Your task to perform on an android device: Go to network settings Image 0: 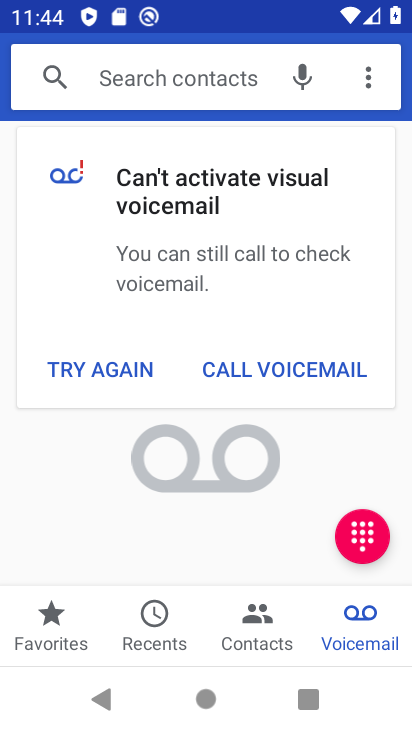
Step 0: press home button
Your task to perform on an android device: Go to network settings Image 1: 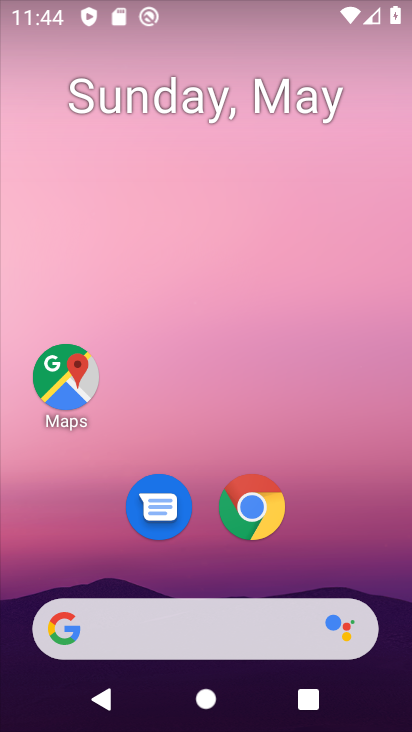
Step 1: drag from (231, 716) to (232, 80)
Your task to perform on an android device: Go to network settings Image 2: 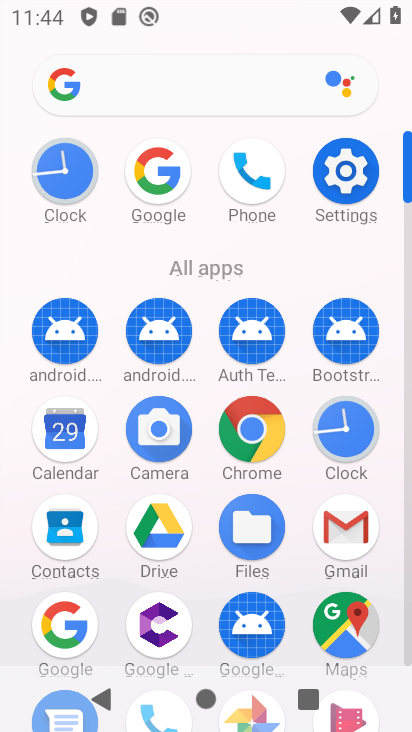
Step 2: click (348, 172)
Your task to perform on an android device: Go to network settings Image 3: 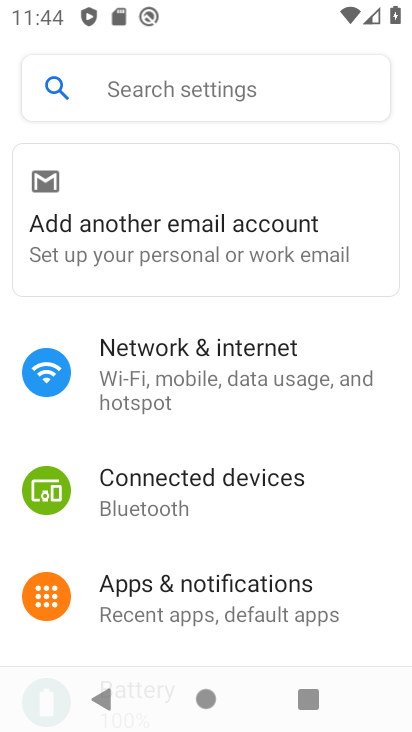
Step 3: click (162, 373)
Your task to perform on an android device: Go to network settings Image 4: 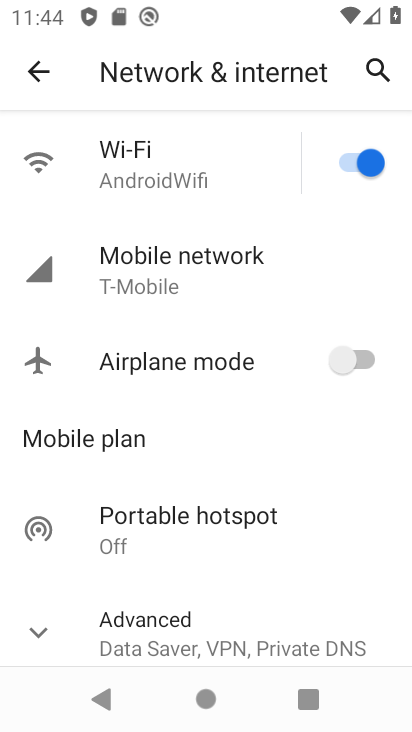
Step 4: click (168, 261)
Your task to perform on an android device: Go to network settings Image 5: 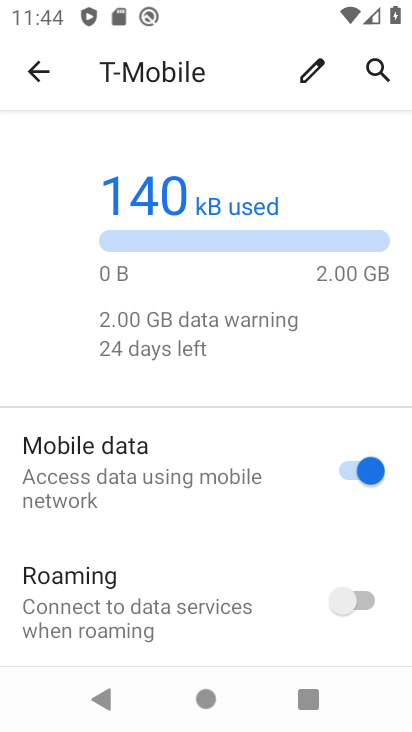
Step 5: task complete